Your task to perform on an android device: turn notification dots off Image 0: 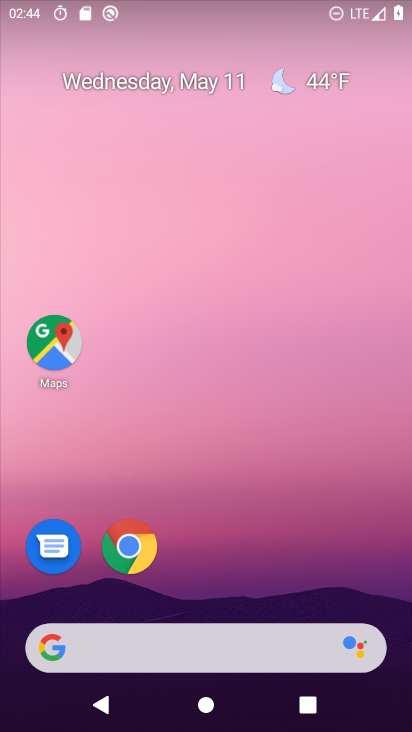
Step 0: drag from (261, 658) to (222, 215)
Your task to perform on an android device: turn notification dots off Image 1: 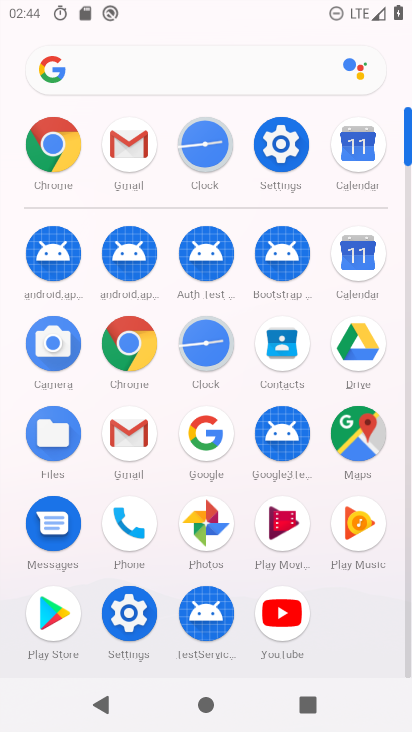
Step 1: click (270, 136)
Your task to perform on an android device: turn notification dots off Image 2: 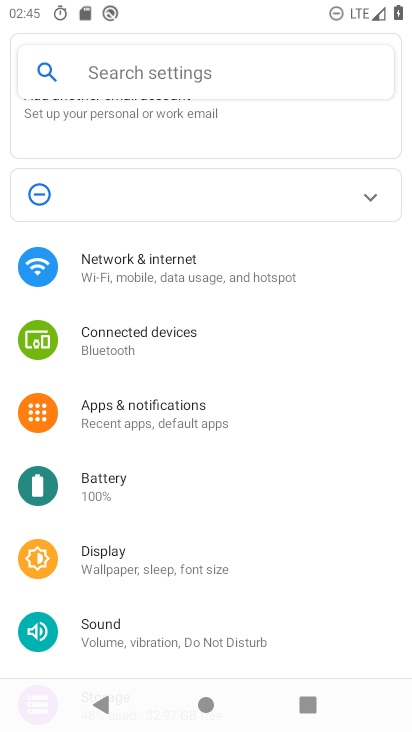
Step 2: click (179, 78)
Your task to perform on an android device: turn notification dots off Image 3: 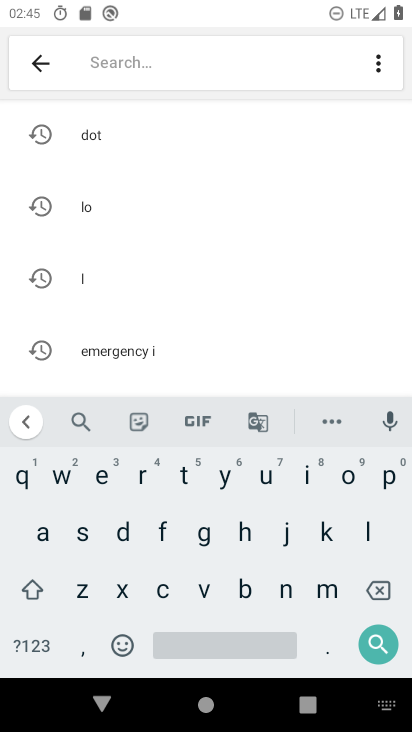
Step 3: click (118, 531)
Your task to perform on an android device: turn notification dots off Image 4: 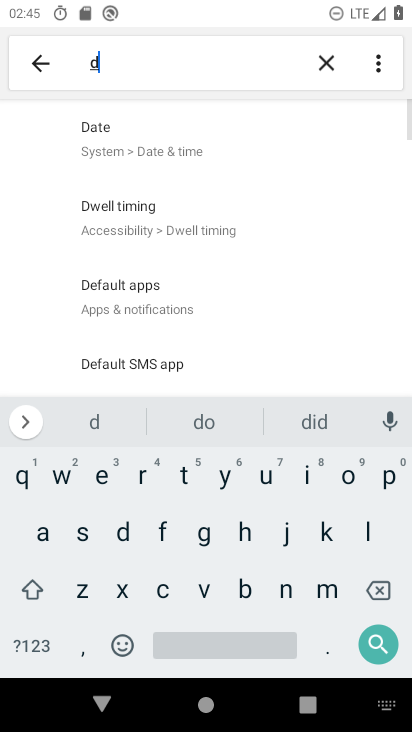
Step 4: click (341, 481)
Your task to perform on an android device: turn notification dots off Image 5: 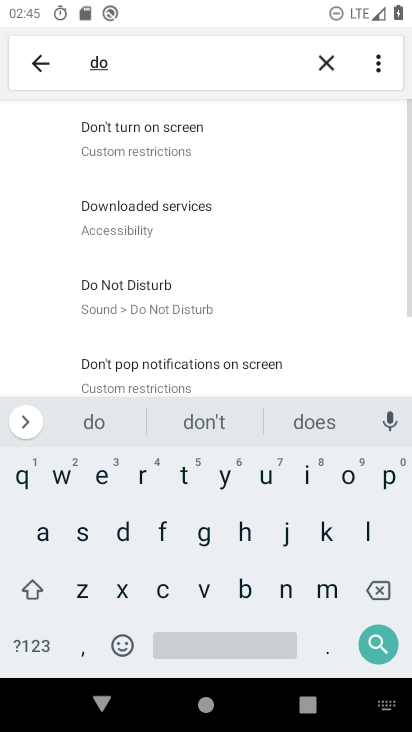
Step 5: click (176, 473)
Your task to perform on an android device: turn notification dots off Image 6: 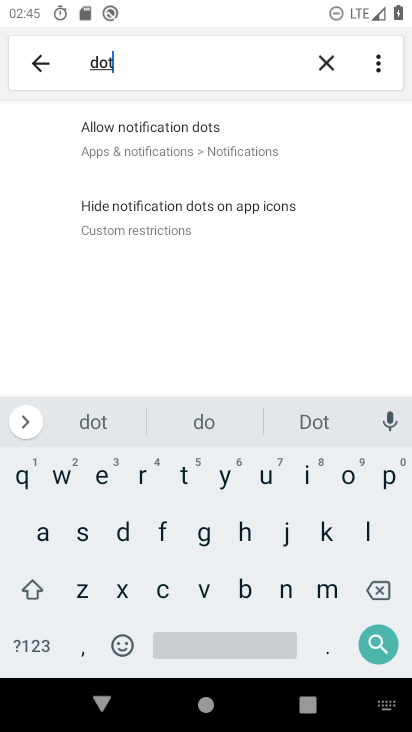
Step 6: click (163, 148)
Your task to perform on an android device: turn notification dots off Image 7: 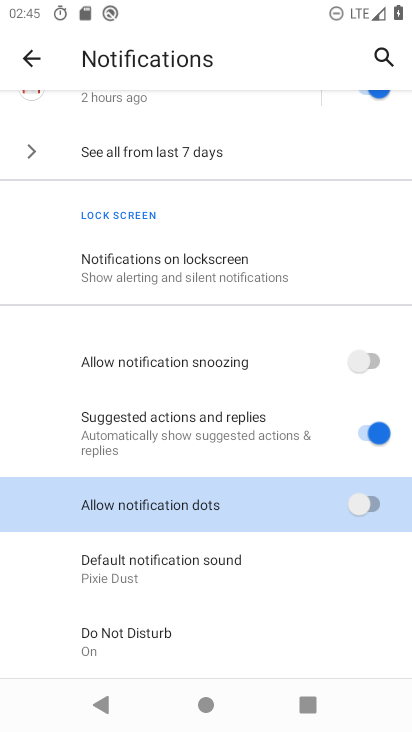
Step 7: click (152, 508)
Your task to perform on an android device: turn notification dots off Image 8: 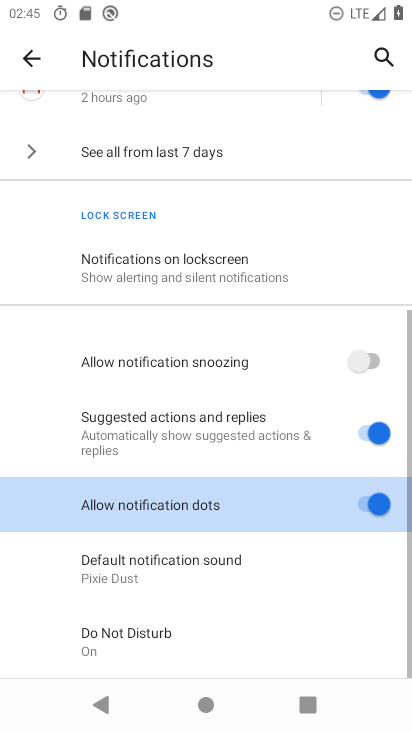
Step 8: click (165, 498)
Your task to perform on an android device: turn notification dots off Image 9: 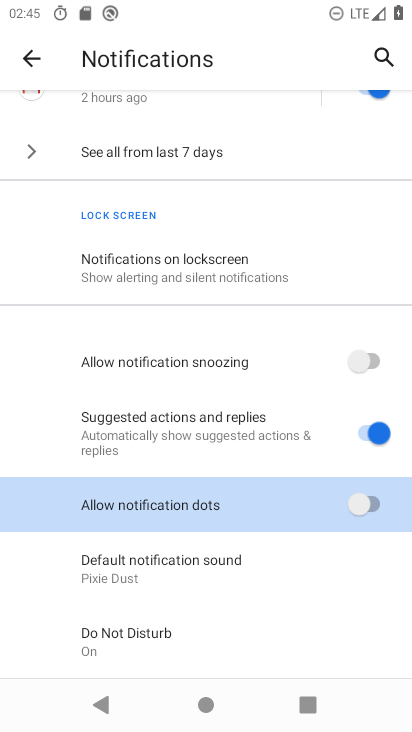
Step 9: task complete